Your task to perform on an android device: delete browsing data in the chrome app Image 0: 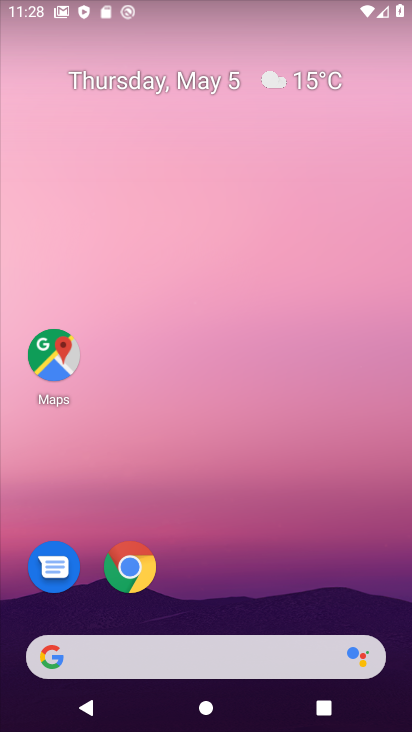
Step 0: click (133, 562)
Your task to perform on an android device: delete browsing data in the chrome app Image 1: 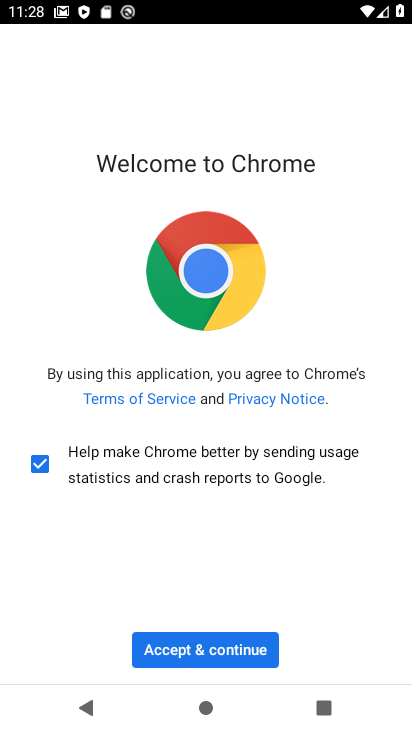
Step 1: click (235, 641)
Your task to perform on an android device: delete browsing data in the chrome app Image 2: 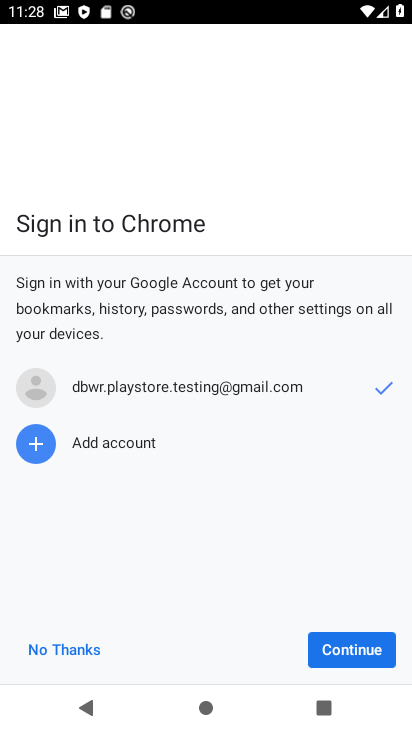
Step 2: click (358, 657)
Your task to perform on an android device: delete browsing data in the chrome app Image 3: 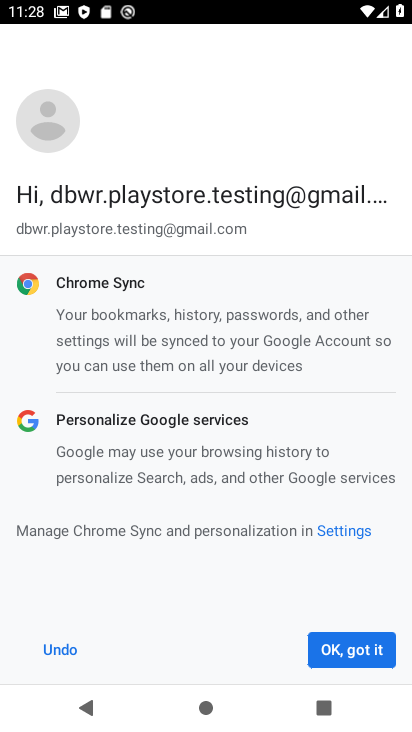
Step 3: click (356, 654)
Your task to perform on an android device: delete browsing data in the chrome app Image 4: 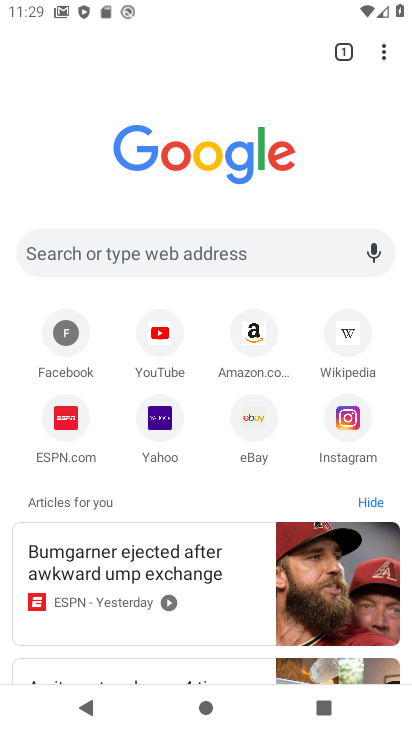
Step 4: click (389, 59)
Your task to perform on an android device: delete browsing data in the chrome app Image 5: 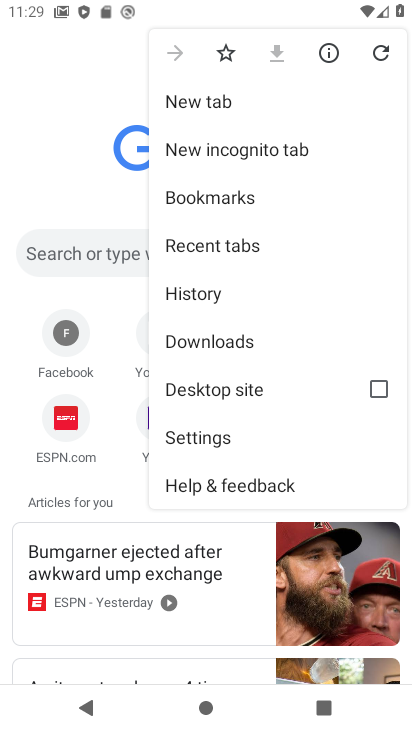
Step 5: click (241, 438)
Your task to perform on an android device: delete browsing data in the chrome app Image 6: 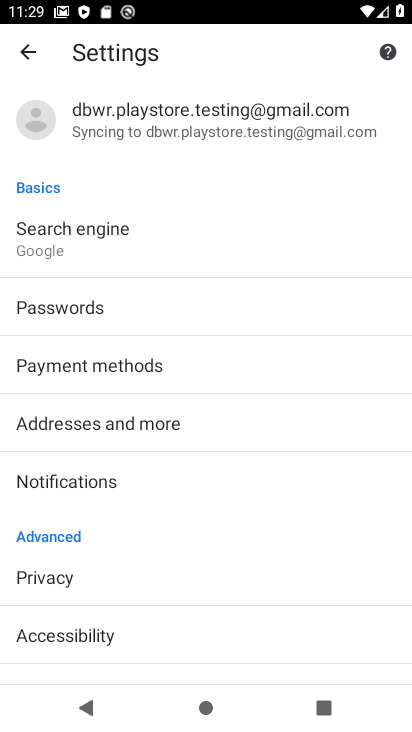
Step 6: click (37, 44)
Your task to perform on an android device: delete browsing data in the chrome app Image 7: 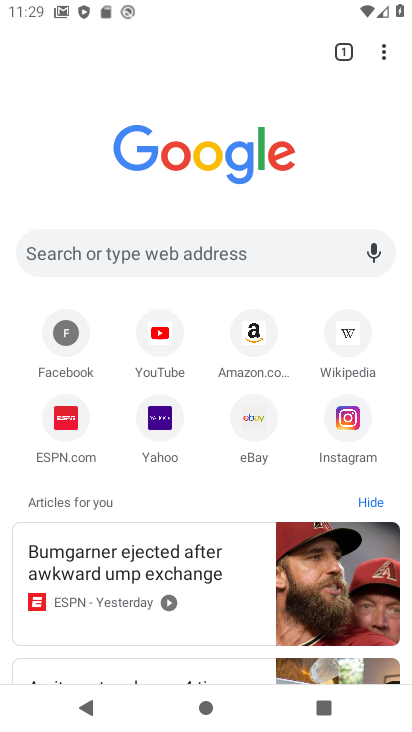
Step 7: drag from (186, 660) to (174, 441)
Your task to perform on an android device: delete browsing data in the chrome app Image 8: 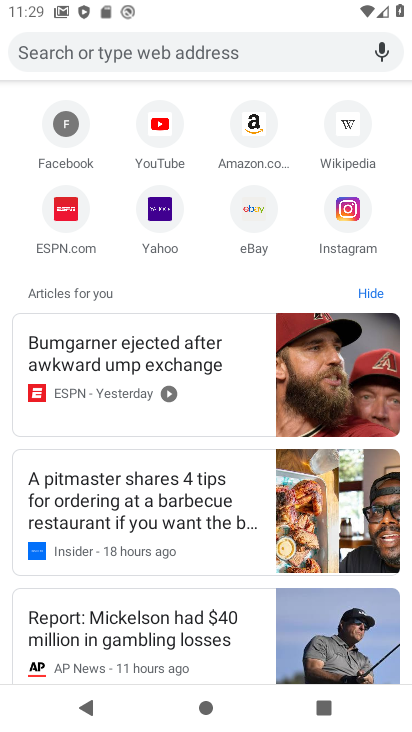
Step 8: drag from (305, 98) to (288, 376)
Your task to perform on an android device: delete browsing data in the chrome app Image 9: 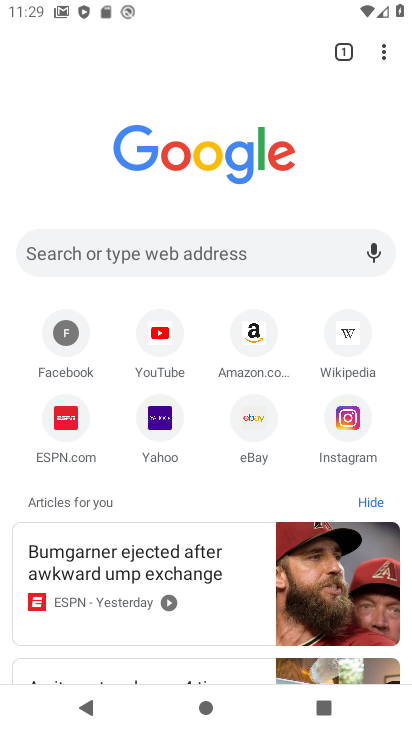
Step 9: click (387, 50)
Your task to perform on an android device: delete browsing data in the chrome app Image 10: 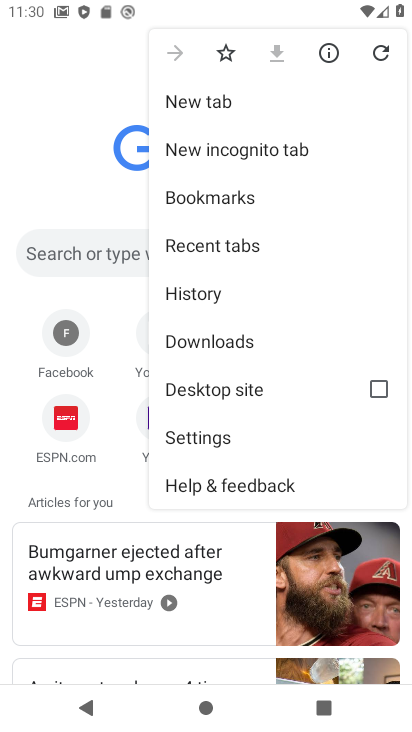
Step 10: click (223, 289)
Your task to perform on an android device: delete browsing data in the chrome app Image 11: 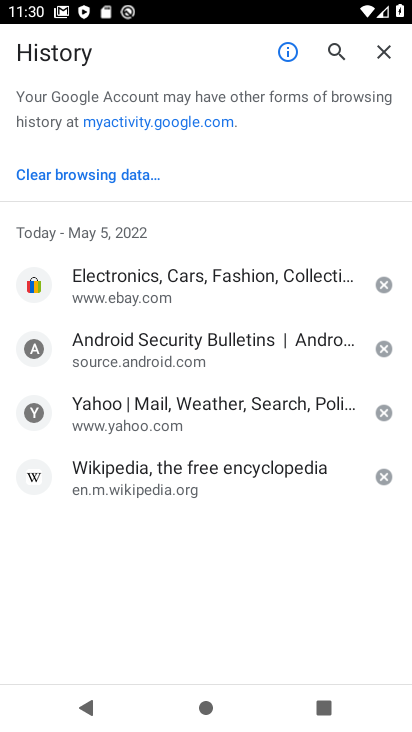
Step 11: click (98, 158)
Your task to perform on an android device: delete browsing data in the chrome app Image 12: 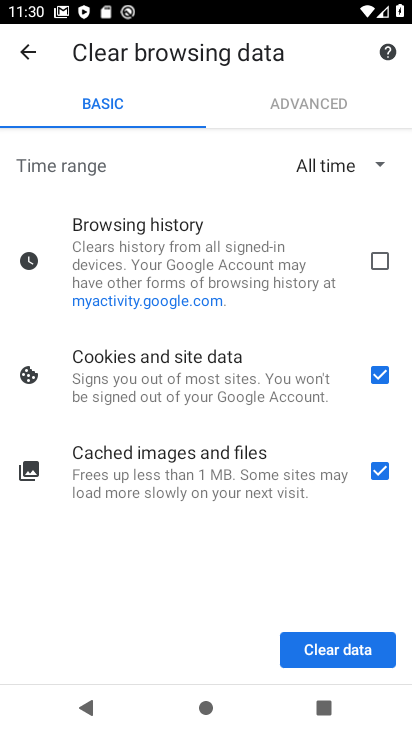
Step 12: click (380, 259)
Your task to perform on an android device: delete browsing data in the chrome app Image 13: 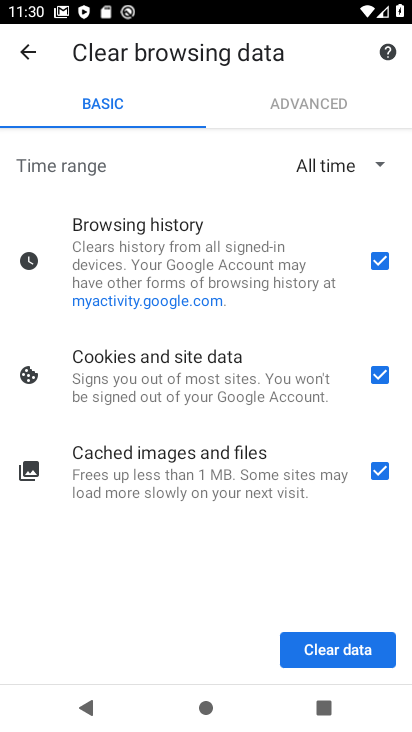
Step 13: click (375, 659)
Your task to perform on an android device: delete browsing data in the chrome app Image 14: 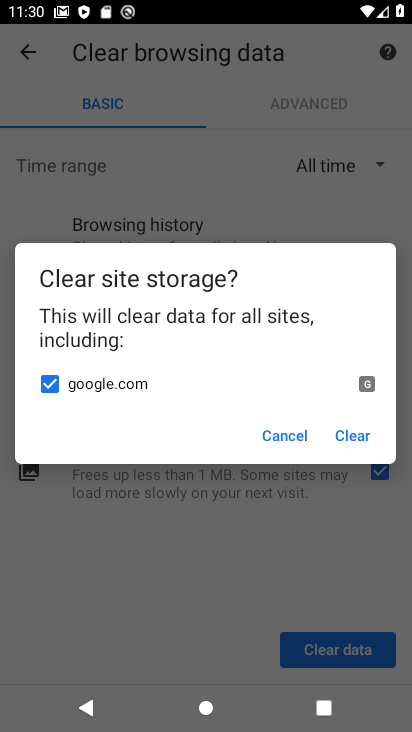
Step 14: click (359, 439)
Your task to perform on an android device: delete browsing data in the chrome app Image 15: 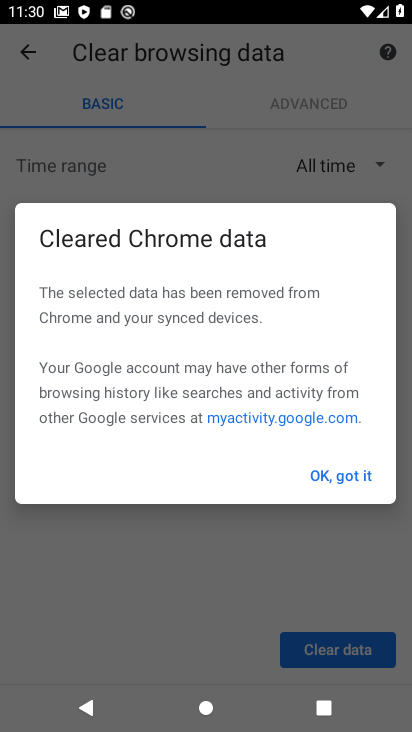
Step 15: click (359, 467)
Your task to perform on an android device: delete browsing data in the chrome app Image 16: 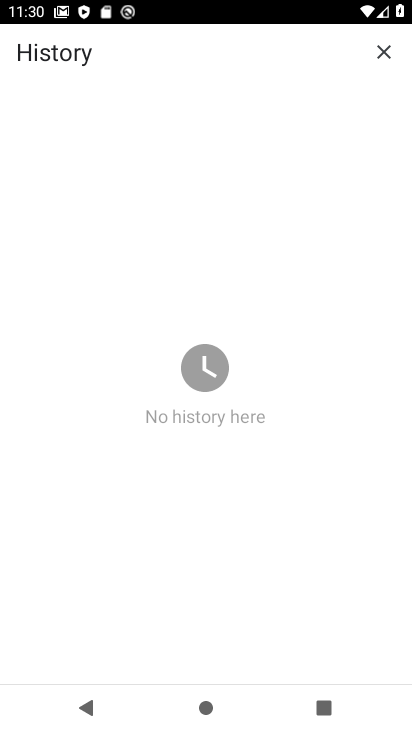
Step 16: task complete